Your task to perform on an android device: turn on bluetooth scan Image 0: 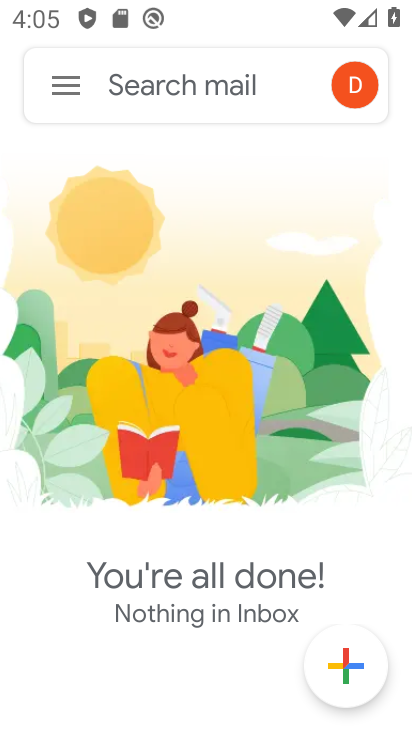
Step 0: press home button
Your task to perform on an android device: turn on bluetooth scan Image 1: 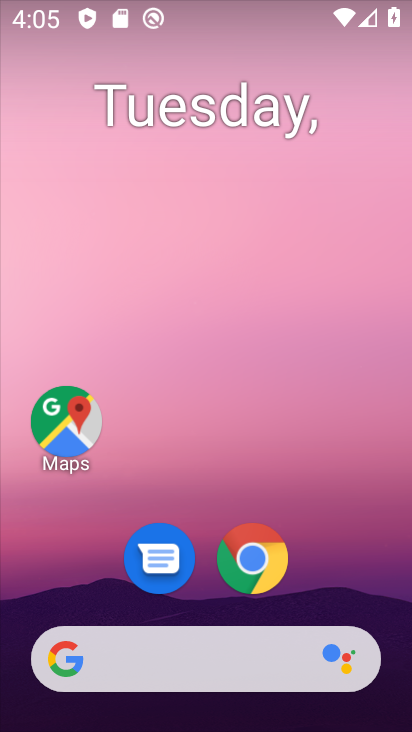
Step 1: drag from (373, 577) to (284, 169)
Your task to perform on an android device: turn on bluetooth scan Image 2: 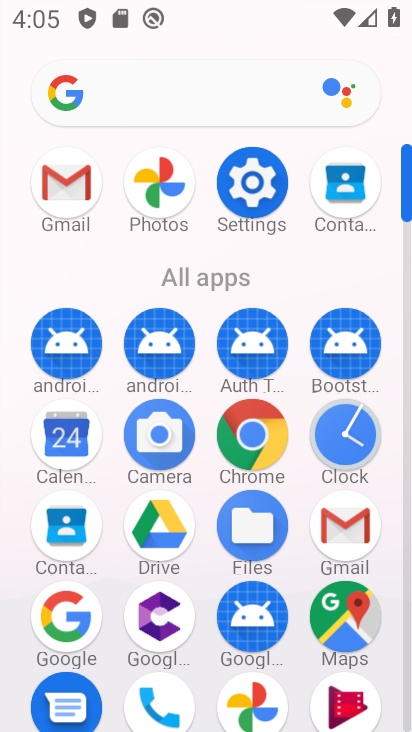
Step 2: click (264, 177)
Your task to perform on an android device: turn on bluetooth scan Image 3: 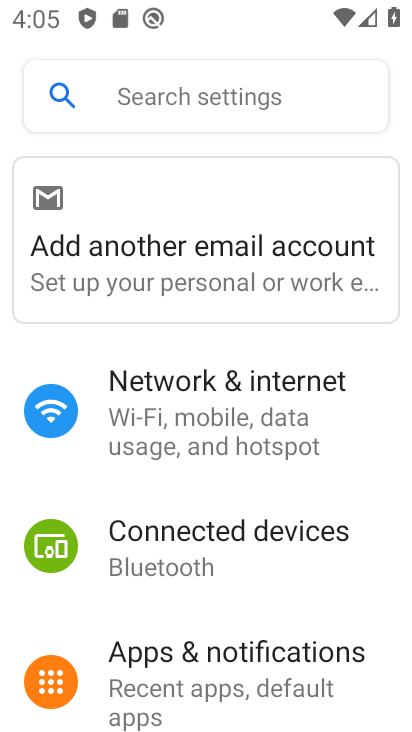
Step 3: drag from (256, 638) to (210, 224)
Your task to perform on an android device: turn on bluetooth scan Image 4: 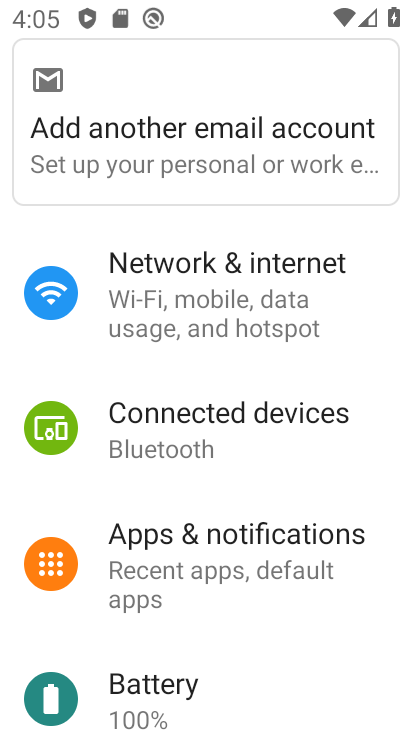
Step 4: drag from (235, 653) to (182, 296)
Your task to perform on an android device: turn on bluetooth scan Image 5: 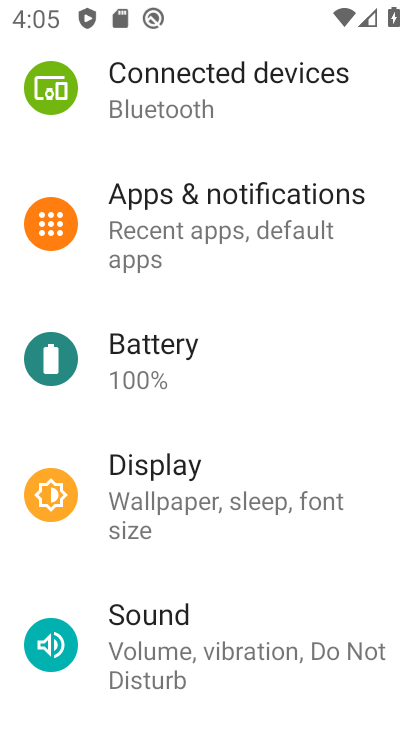
Step 5: drag from (271, 587) to (224, 152)
Your task to perform on an android device: turn on bluetooth scan Image 6: 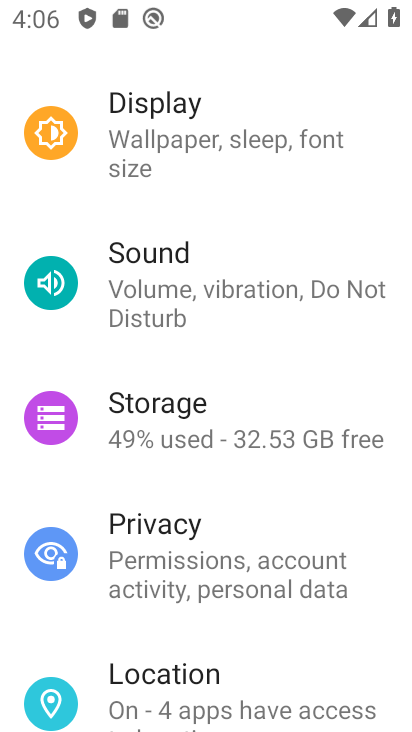
Step 6: click (288, 681)
Your task to perform on an android device: turn on bluetooth scan Image 7: 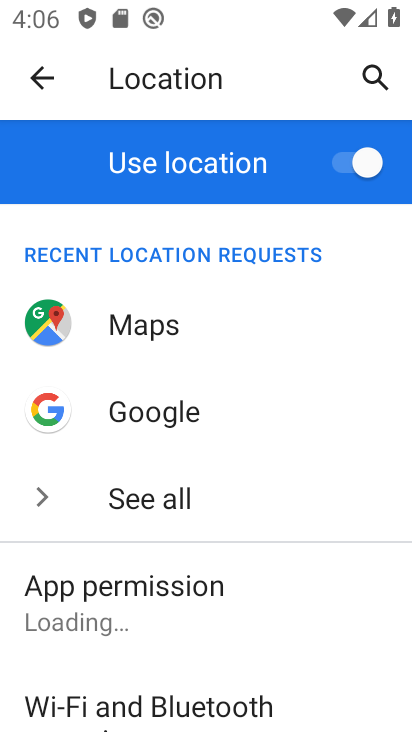
Step 7: drag from (288, 681) to (259, 304)
Your task to perform on an android device: turn on bluetooth scan Image 8: 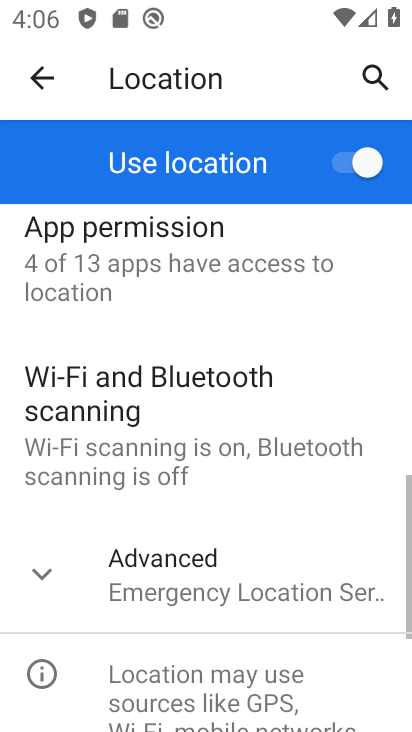
Step 8: click (297, 604)
Your task to perform on an android device: turn on bluetooth scan Image 9: 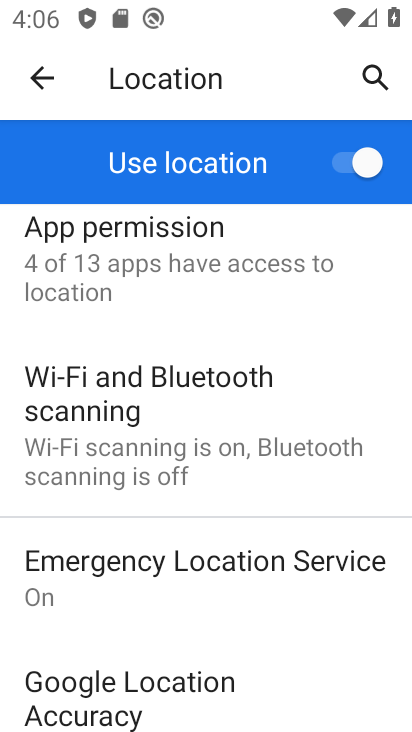
Step 9: drag from (324, 702) to (297, 363)
Your task to perform on an android device: turn on bluetooth scan Image 10: 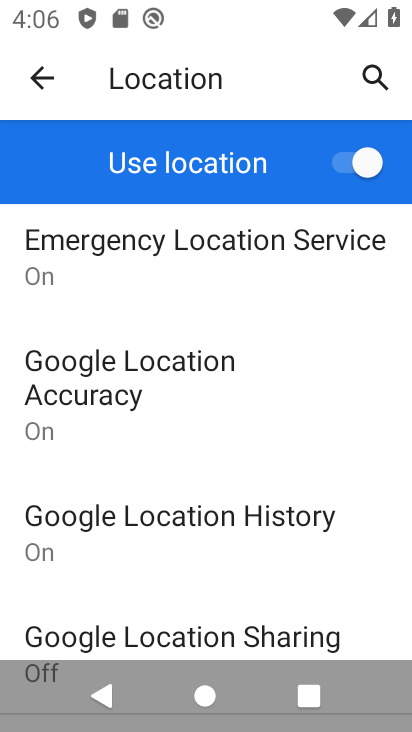
Step 10: drag from (297, 363) to (325, 668)
Your task to perform on an android device: turn on bluetooth scan Image 11: 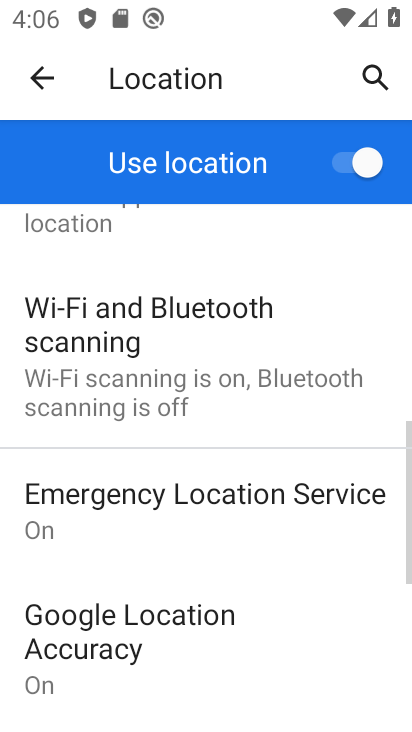
Step 11: click (277, 367)
Your task to perform on an android device: turn on bluetooth scan Image 12: 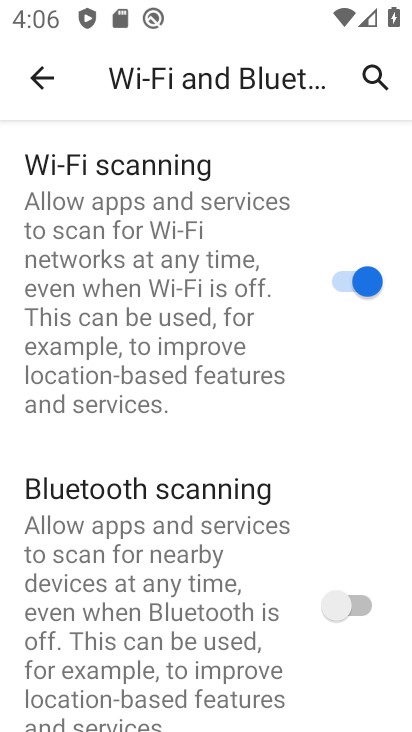
Step 12: click (342, 598)
Your task to perform on an android device: turn on bluetooth scan Image 13: 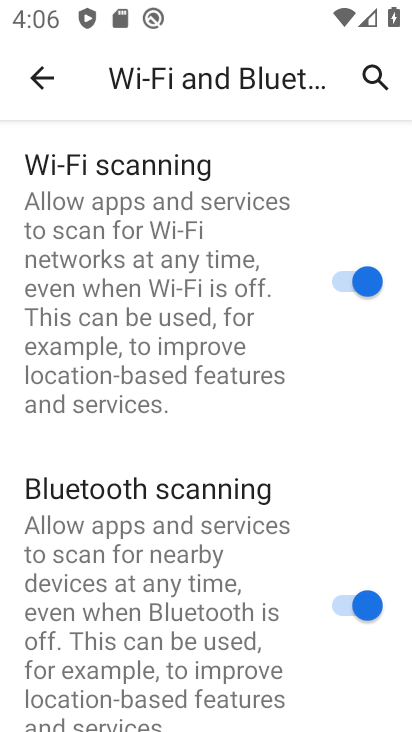
Step 13: task complete